Your task to perform on an android device: What is the news today? Image 0: 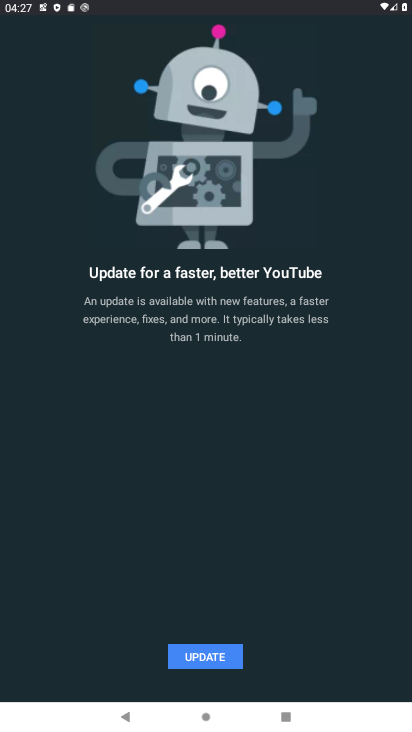
Step 0: press home button
Your task to perform on an android device: What is the news today? Image 1: 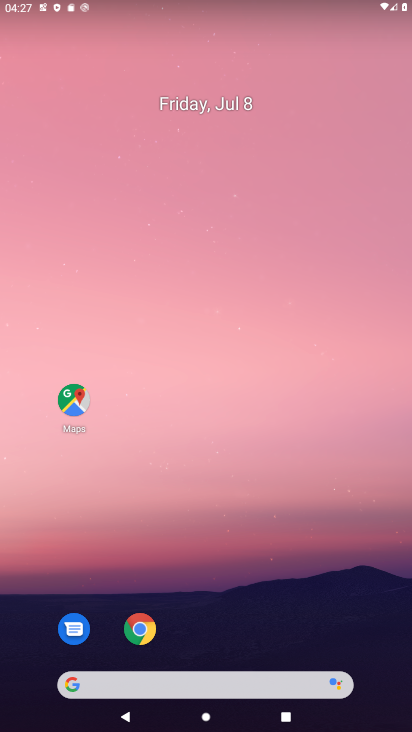
Step 1: task complete